Your task to perform on an android device: Go to ESPN.com Image 0: 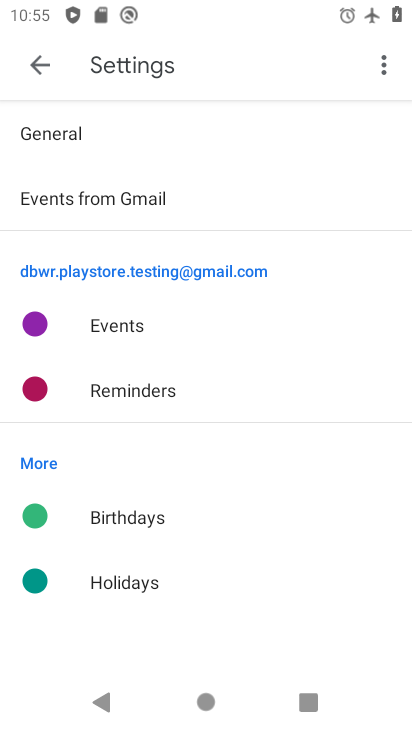
Step 0: press home button
Your task to perform on an android device: Go to ESPN.com Image 1: 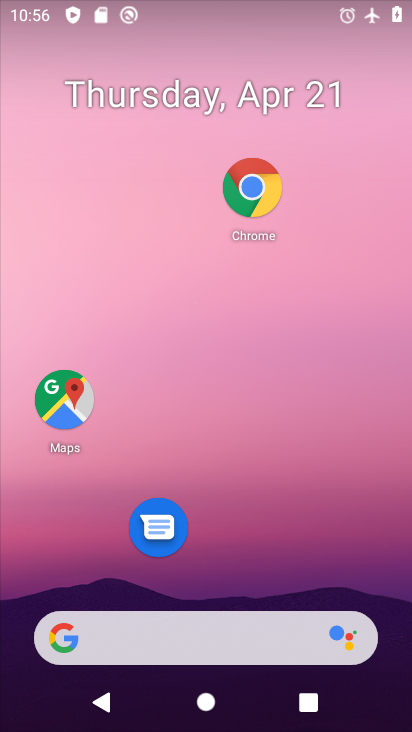
Step 1: click (247, 220)
Your task to perform on an android device: Go to ESPN.com Image 2: 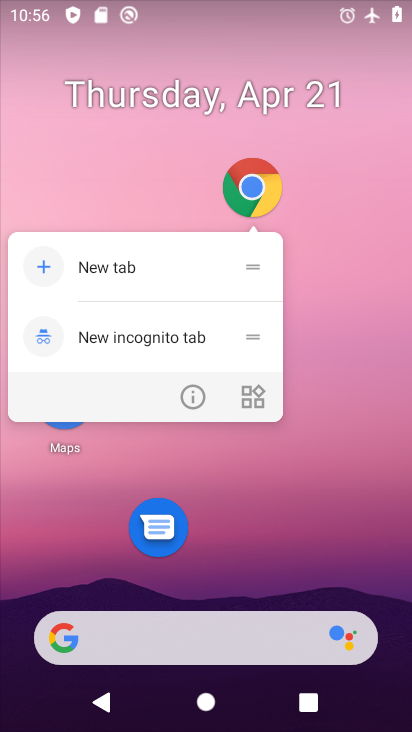
Step 2: click (264, 196)
Your task to perform on an android device: Go to ESPN.com Image 3: 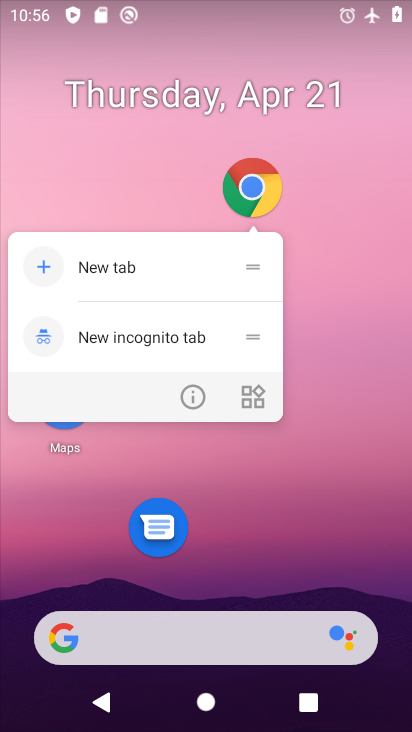
Step 3: click (266, 202)
Your task to perform on an android device: Go to ESPN.com Image 4: 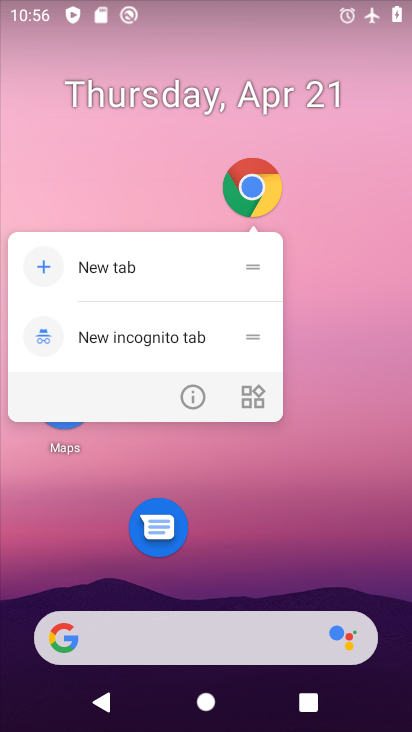
Step 4: click (267, 202)
Your task to perform on an android device: Go to ESPN.com Image 5: 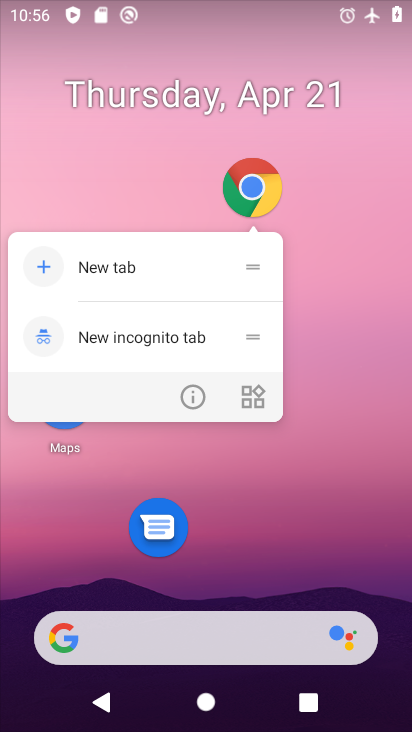
Step 5: click (311, 265)
Your task to perform on an android device: Go to ESPN.com Image 6: 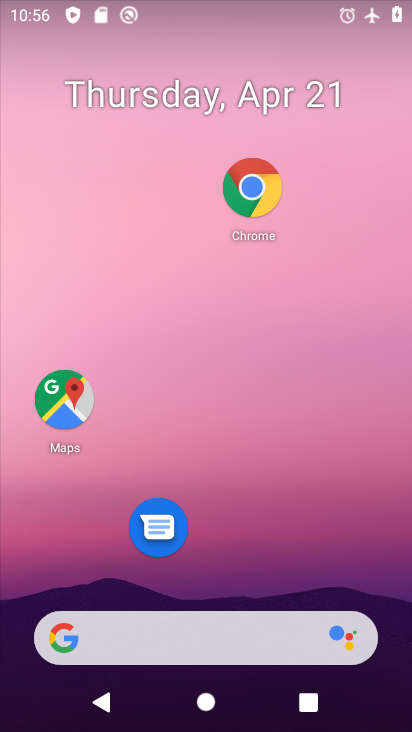
Step 6: click (256, 236)
Your task to perform on an android device: Go to ESPN.com Image 7: 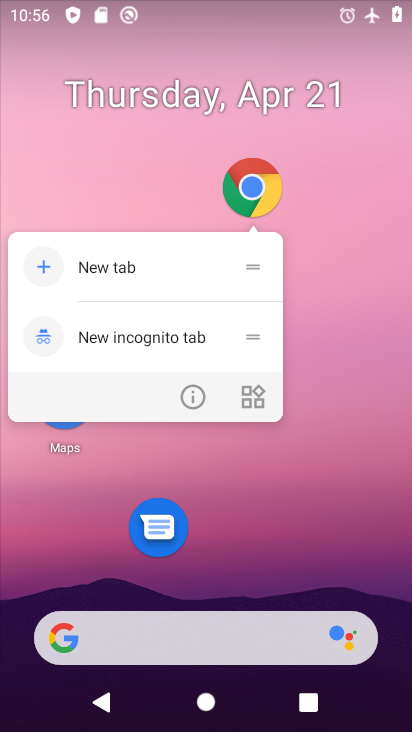
Step 7: click (255, 187)
Your task to perform on an android device: Go to ESPN.com Image 8: 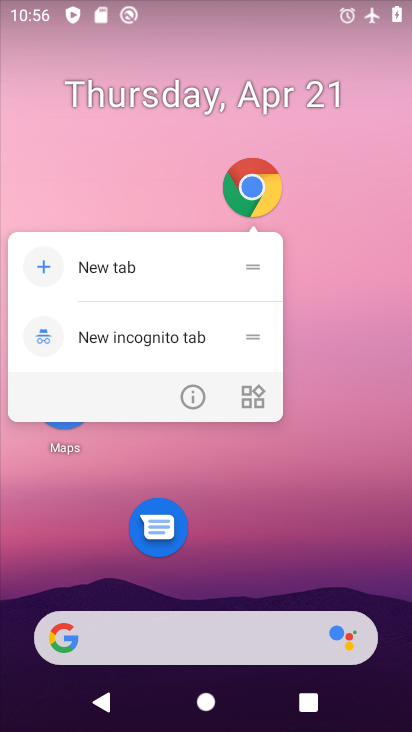
Step 8: click (255, 187)
Your task to perform on an android device: Go to ESPN.com Image 9: 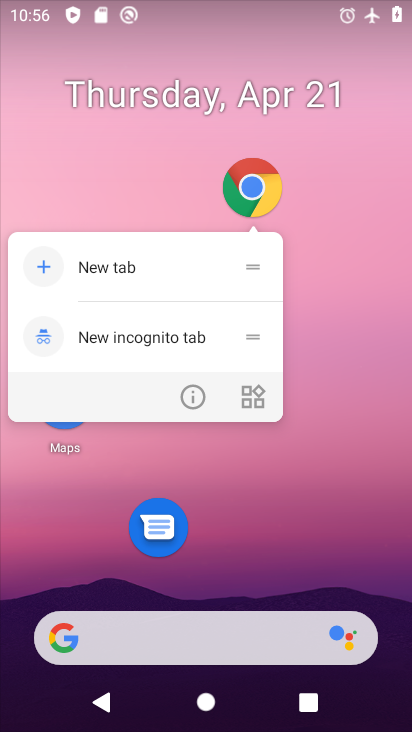
Step 9: click (269, 202)
Your task to perform on an android device: Go to ESPN.com Image 10: 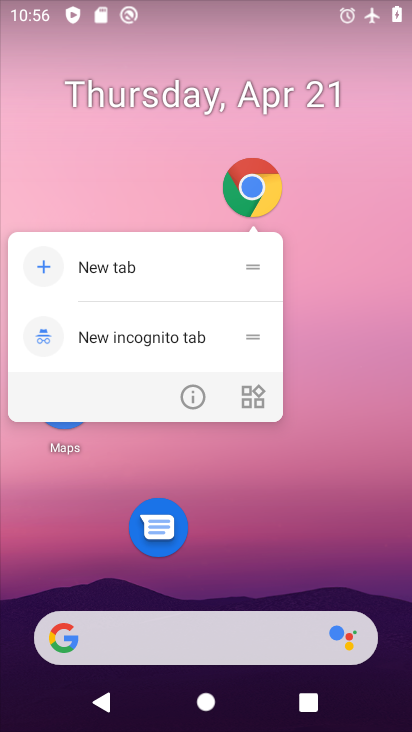
Step 10: click (269, 202)
Your task to perform on an android device: Go to ESPN.com Image 11: 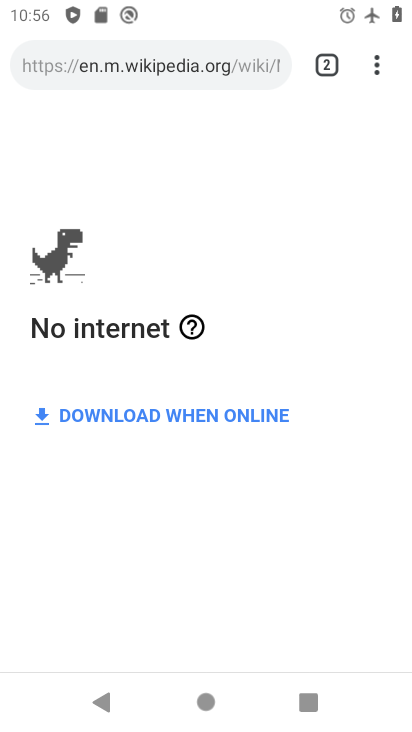
Step 11: click (250, 73)
Your task to perform on an android device: Go to ESPN.com Image 12: 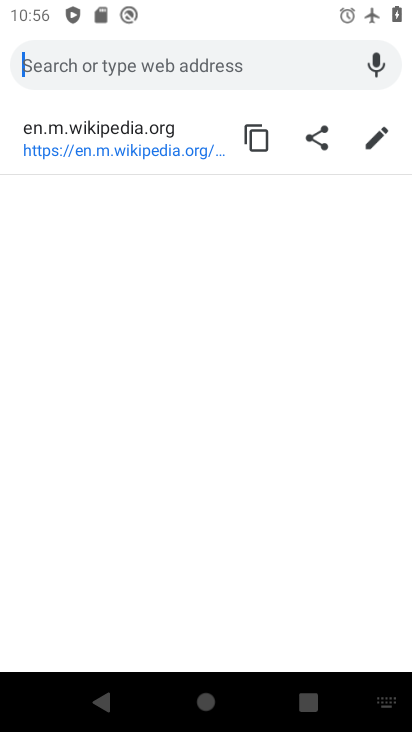
Step 12: type "espn.com"
Your task to perform on an android device: Go to ESPN.com Image 13: 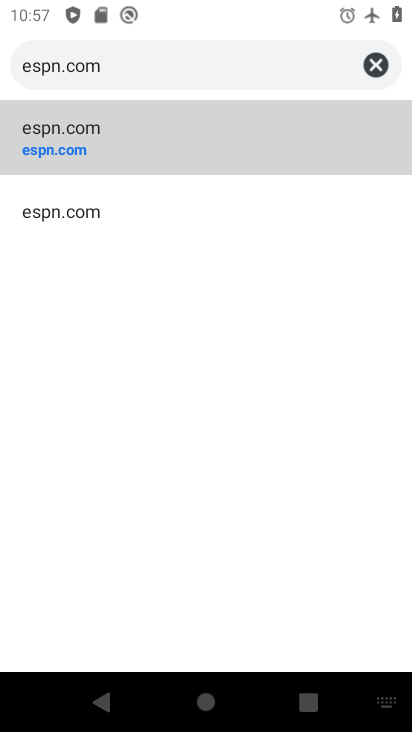
Step 13: click (203, 138)
Your task to perform on an android device: Go to ESPN.com Image 14: 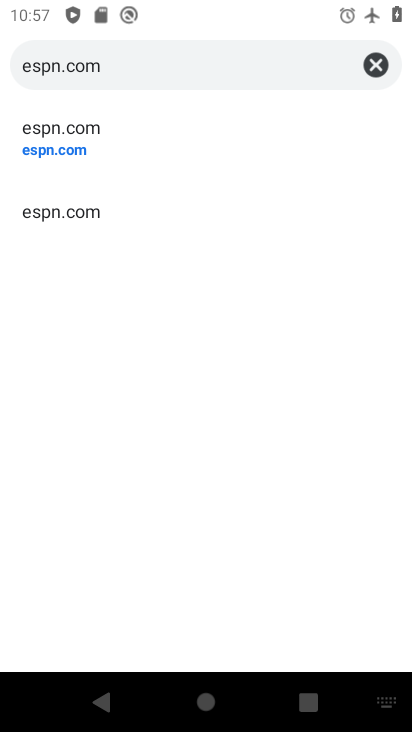
Step 14: click (202, 133)
Your task to perform on an android device: Go to ESPN.com Image 15: 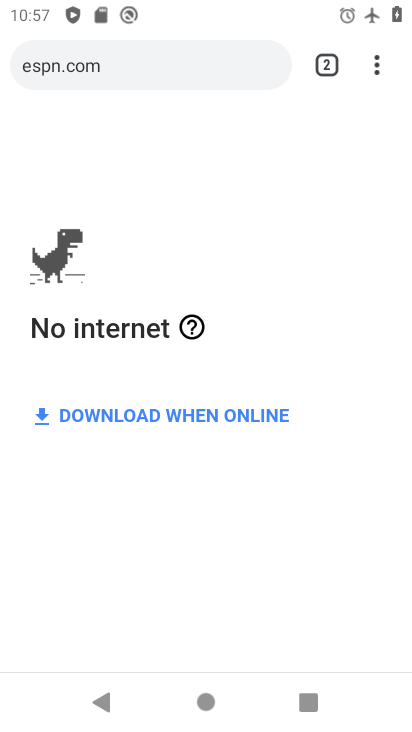
Step 15: task complete